Your task to perform on an android device: change the upload size in google photos Image 0: 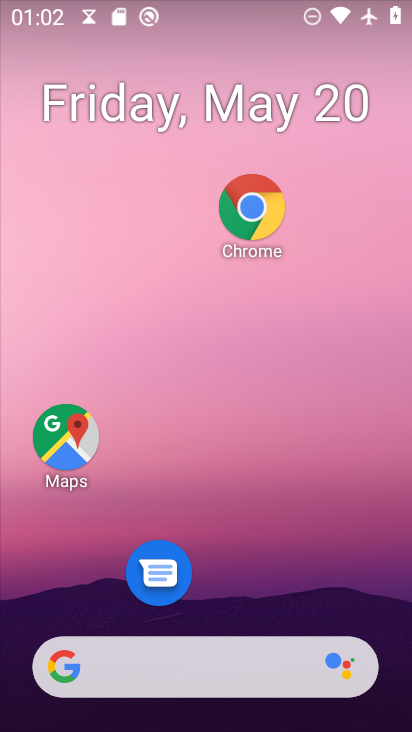
Step 0: drag from (272, 570) to (301, 55)
Your task to perform on an android device: change the upload size in google photos Image 1: 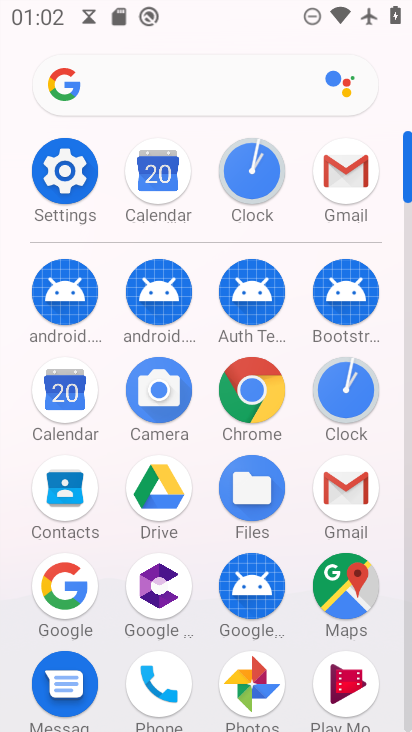
Step 1: click (254, 655)
Your task to perform on an android device: change the upload size in google photos Image 2: 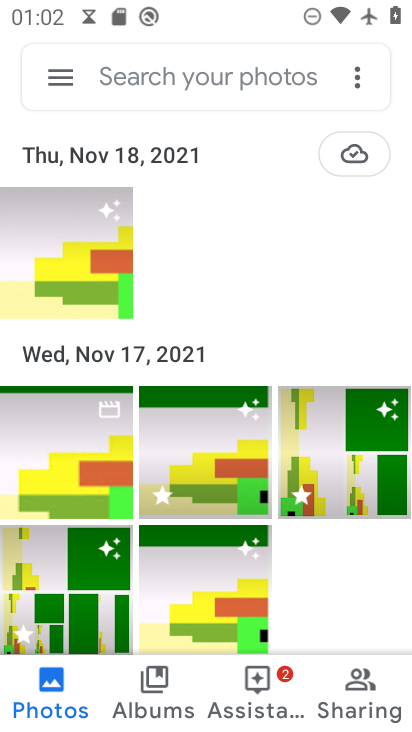
Step 2: click (62, 77)
Your task to perform on an android device: change the upload size in google photos Image 3: 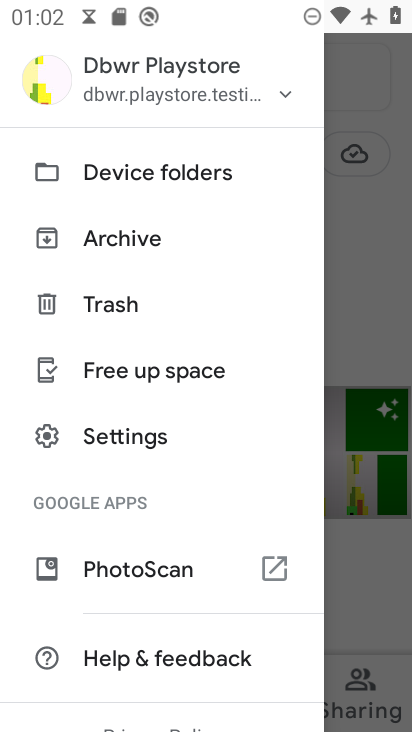
Step 3: click (176, 442)
Your task to perform on an android device: change the upload size in google photos Image 4: 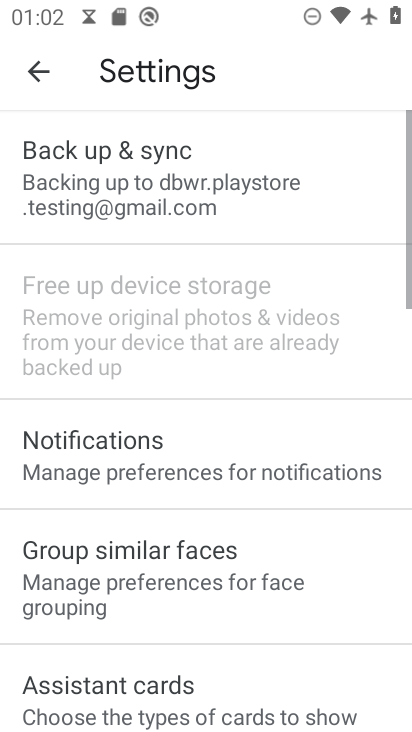
Step 4: click (170, 142)
Your task to perform on an android device: change the upload size in google photos Image 5: 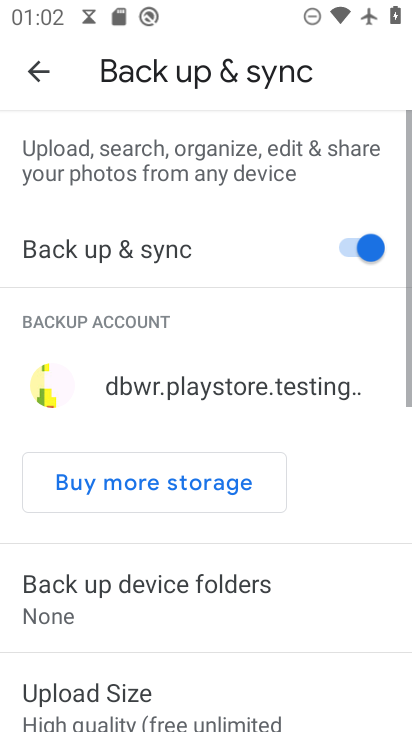
Step 5: drag from (156, 631) to (177, 286)
Your task to perform on an android device: change the upload size in google photos Image 6: 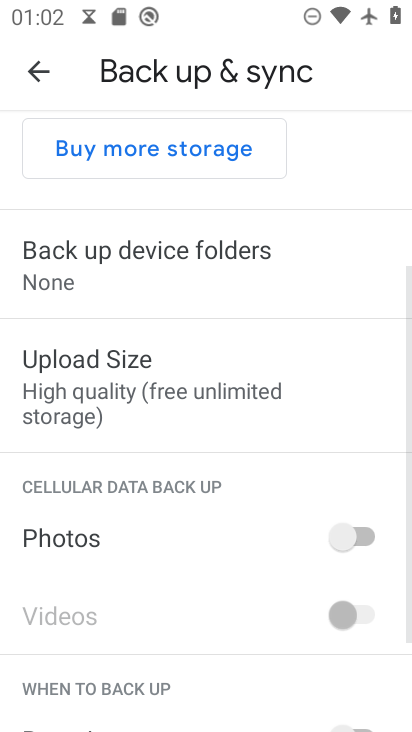
Step 6: click (186, 374)
Your task to perform on an android device: change the upload size in google photos Image 7: 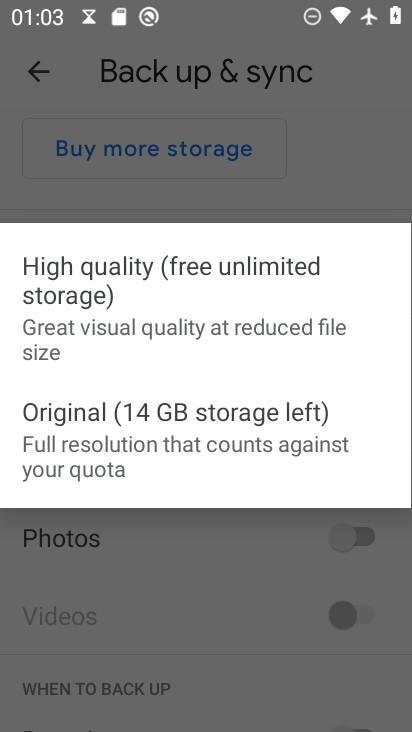
Step 7: click (172, 432)
Your task to perform on an android device: change the upload size in google photos Image 8: 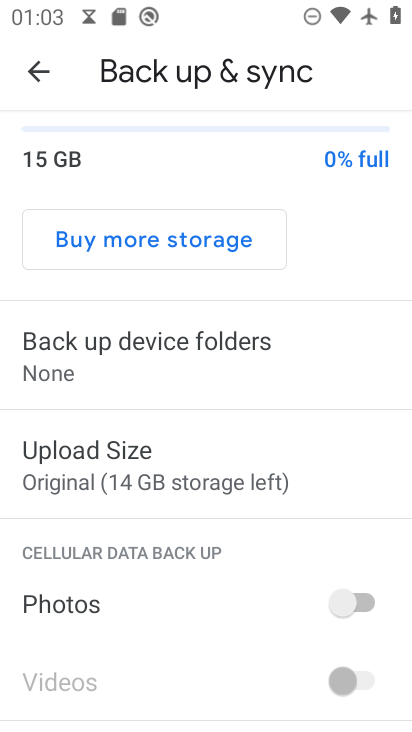
Step 8: task complete